Your task to perform on an android device: empty trash in the gmail app Image 0: 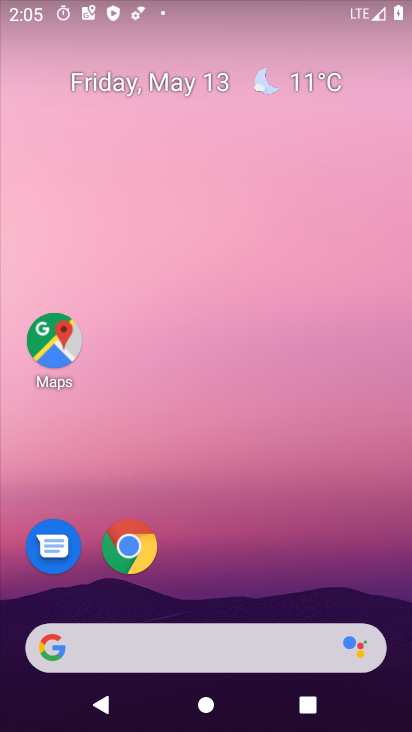
Step 0: drag from (182, 568) to (265, 264)
Your task to perform on an android device: empty trash in the gmail app Image 1: 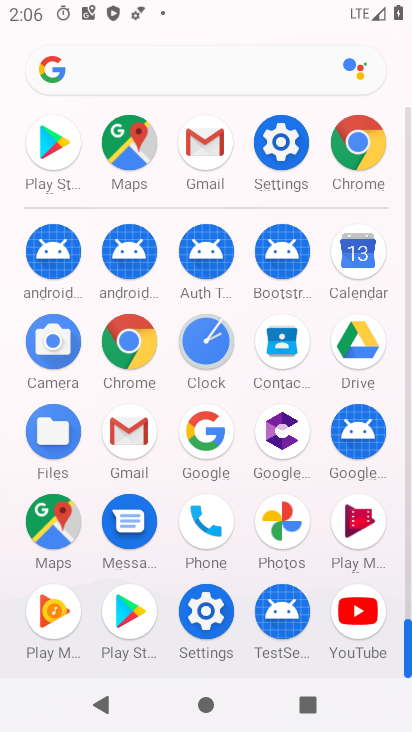
Step 1: click (123, 436)
Your task to perform on an android device: empty trash in the gmail app Image 2: 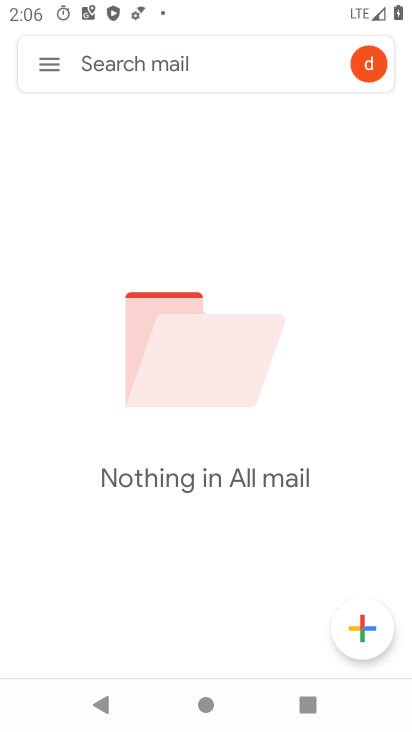
Step 2: click (62, 66)
Your task to perform on an android device: empty trash in the gmail app Image 3: 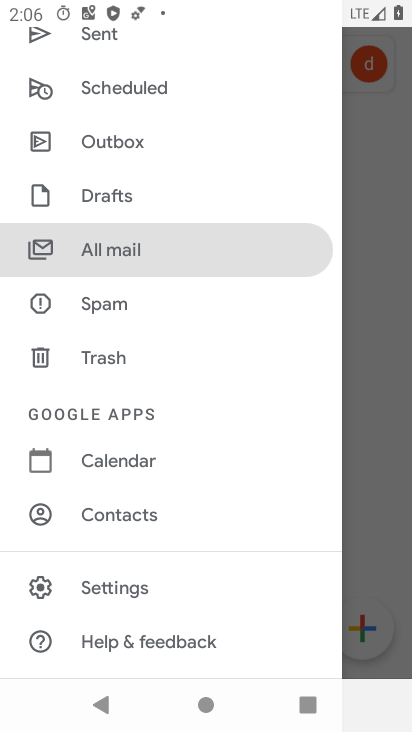
Step 3: click (97, 360)
Your task to perform on an android device: empty trash in the gmail app Image 4: 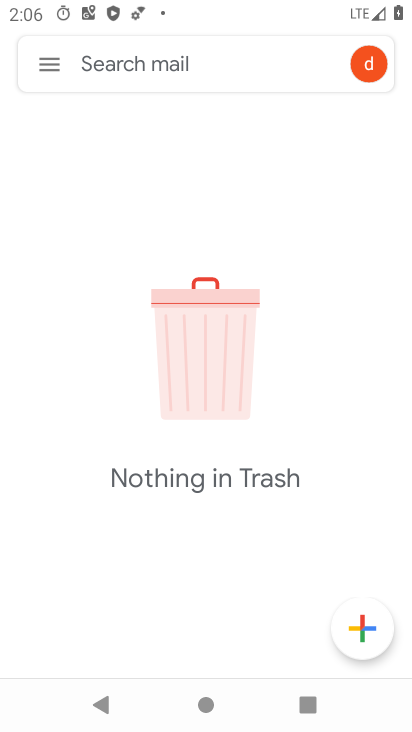
Step 4: task complete